Your task to perform on an android device: Open calendar and show me the fourth week of next month Image 0: 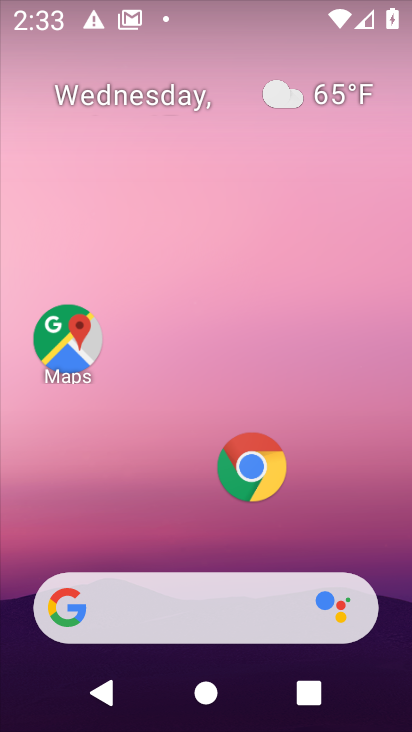
Step 0: drag from (177, 417) to (48, 12)
Your task to perform on an android device: Open calendar and show me the fourth week of next month Image 1: 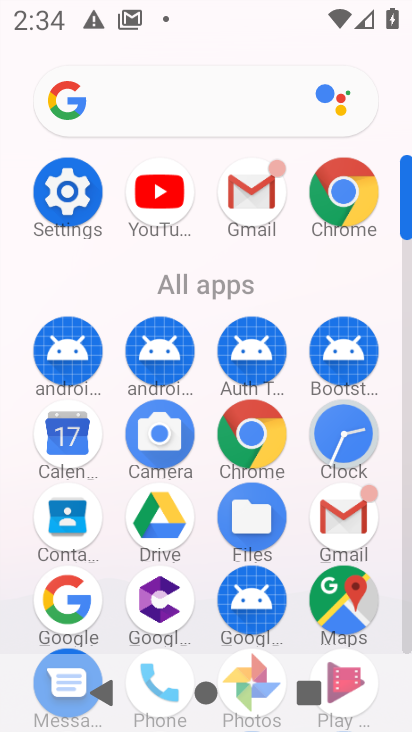
Step 1: drag from (111, 564) to (136, 273)
Your task to perform on an android device: Open calendar and show me the fourth week of next month Image 2: 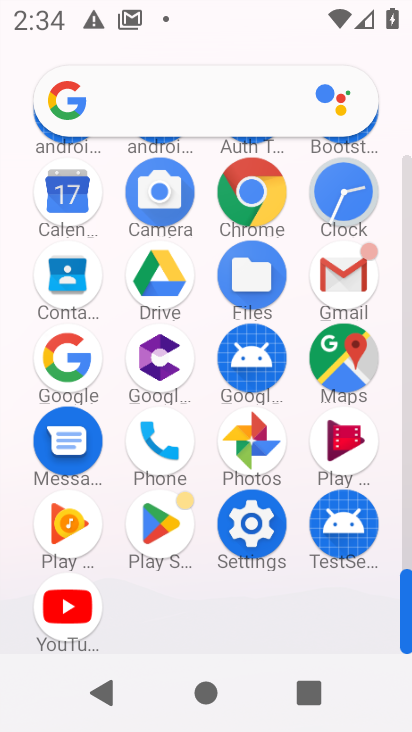
Step 2: click (239, 546)
Your task to perform on an android device: Open calendar and show me the fourth week of next month Image 3: 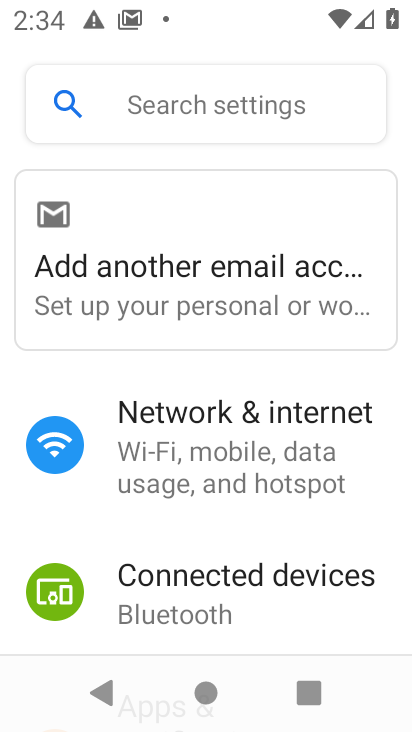
Step 3: task complete